Your task to perform on an android device: toggle notifications settings in the gmail app Image 0: 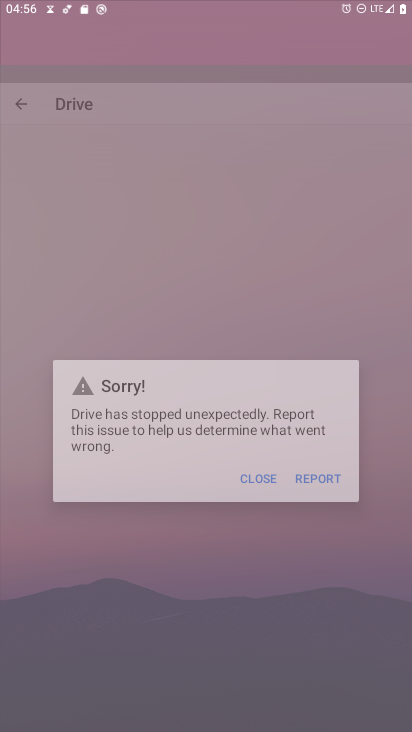
Step 0: press home button
Your task to perform on an android device: toggle notifications settings in the gmail app Image 1: 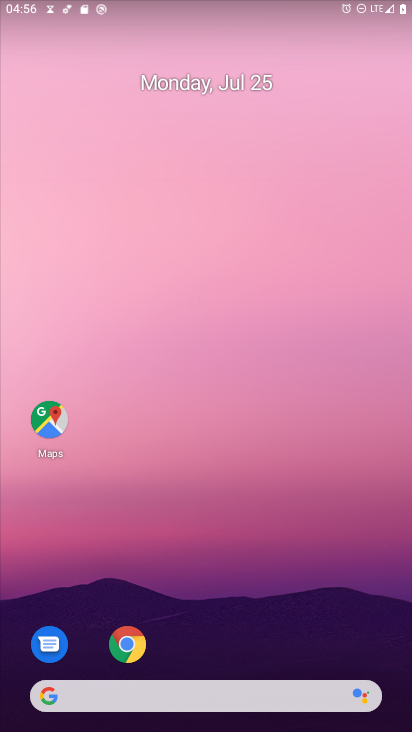
Step 1: drag from (302, 648) to (289, 77)
Your task to perform on an android device: toggle notifications settings in the gmail app Image 2: 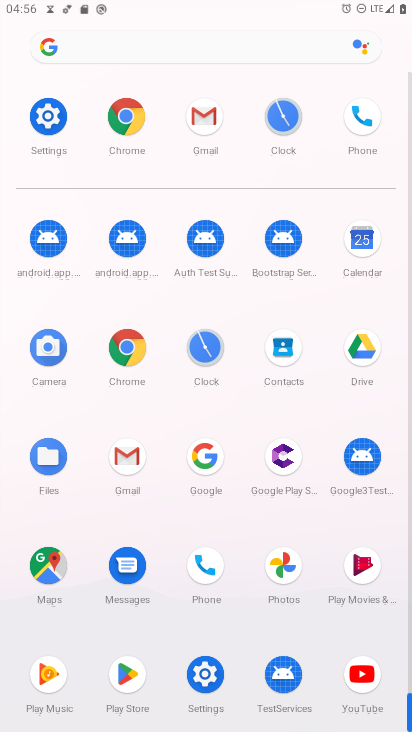
Step 2: click (199, 115)
Your task to perform on an android device: toggle notifications settings in the gmail app Image 3: 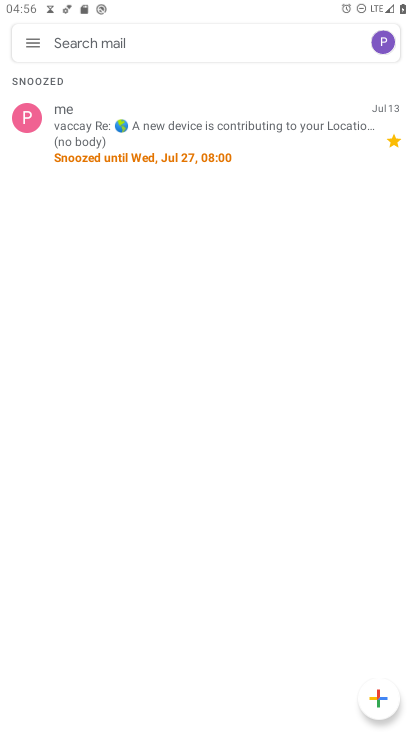
Step 3: click (20, 46)
Your task to perform on an android device: toggle notifications settings in the gmail app Image 4: 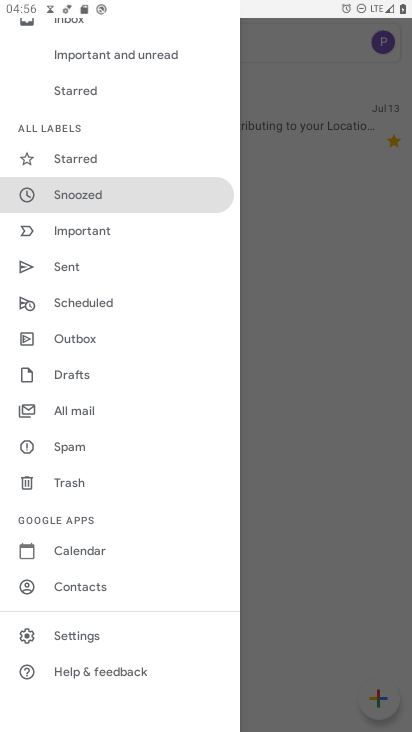
Step 4: click (79, 635)
Your task to perform on an android device: toggle notifications settings in the gmail app Image 5: 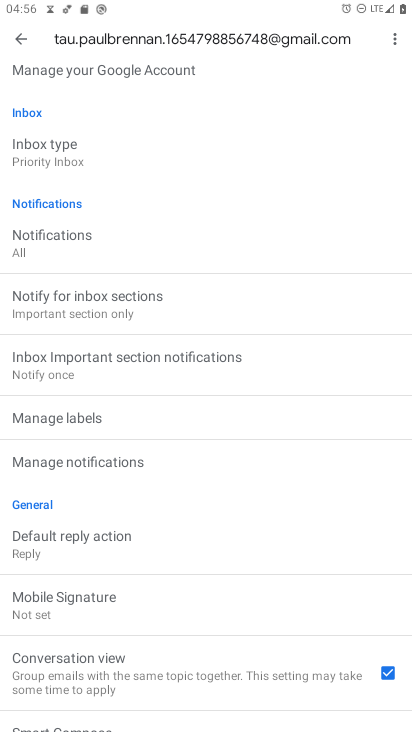
Step 5: click (76, 454)
Your task to perform on an android device: toggle notifications settings in the gmail app Image 6: 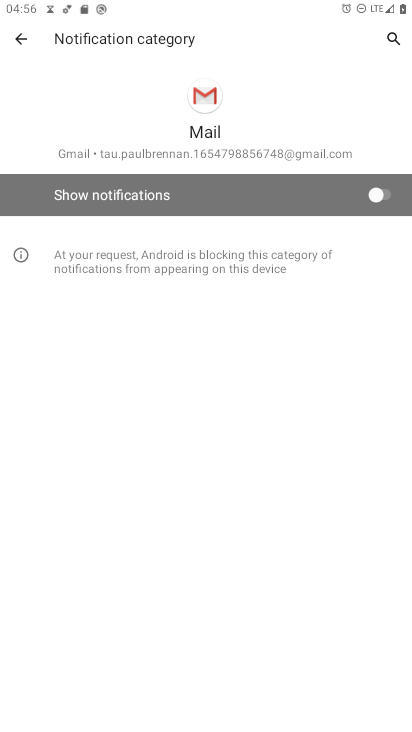
Step 6: click (365, 208)
Your task to perform on an android device: toggle notifications settings in the gmail app Image 7: 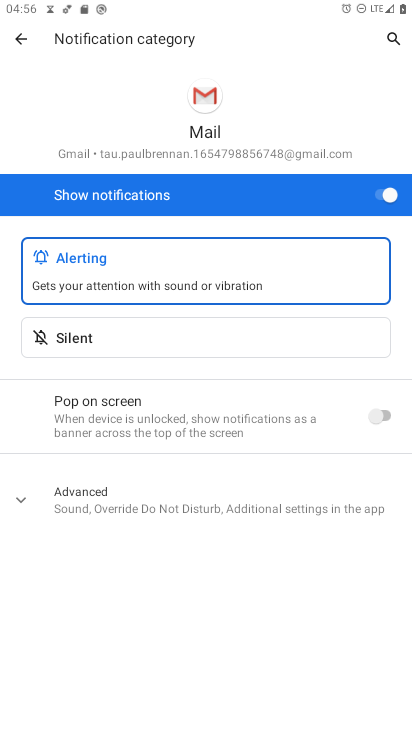
Step 7: task complete